Your task to perform on an android device: Show the shopping cart on walmart.com. Search for usb-c on walmart.com, select the first entry, add it to the cart, then select checkout. Image 0: 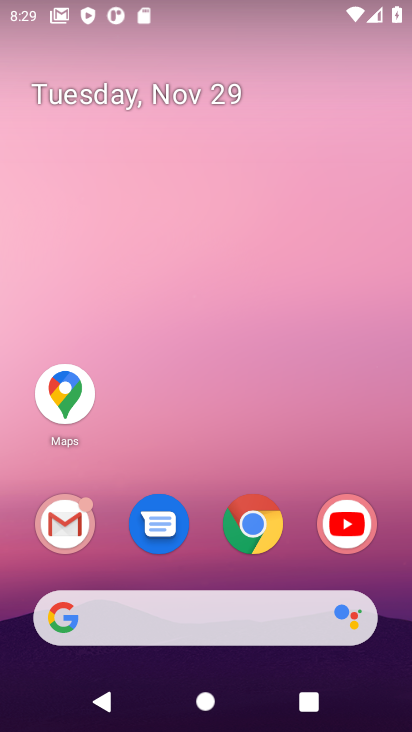
Step 0: click (253, 522)
Your task to perform on an android device: Show the shopping cart on walmart.com. Search for usb-c on walmart.com, select the first entry, add it to the cart, then select checkout. Image 1: 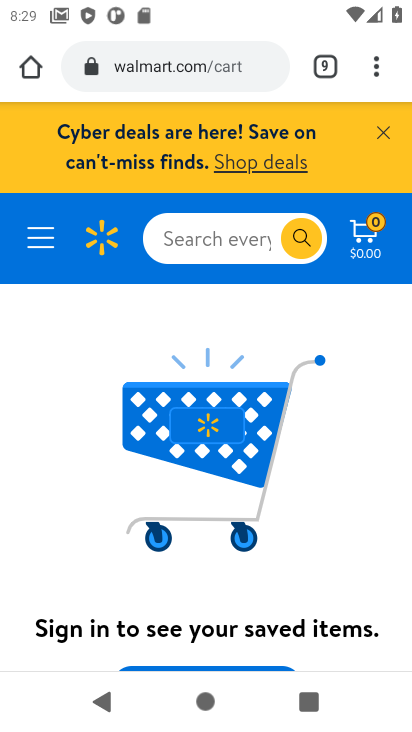
Step 1: drag from (279, 483) to (272, 405)
Your task to perform on an android device: Show the shopping cart on walmart.com. Search for usb-c on walmart.com, select the first entry, add it to the cart, then select checkout. Image 2: 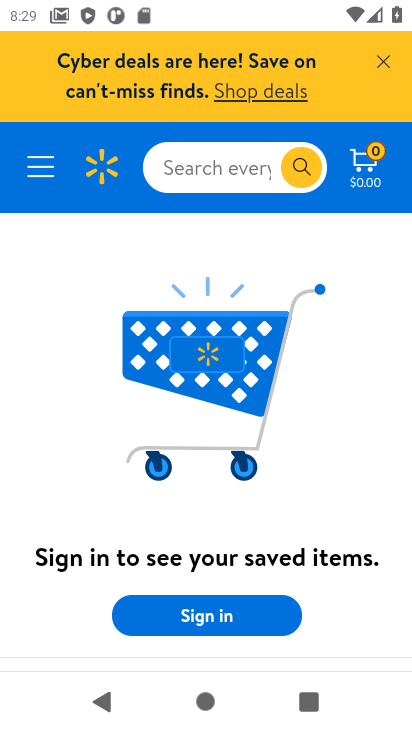
Step 2: click (198, 197)
Your task to perform on an android device: Show the shopping cart on walmart.com. Search for usb-c on walmart.com, select the first entry, add it to the cart, then select checkout. Image 3: 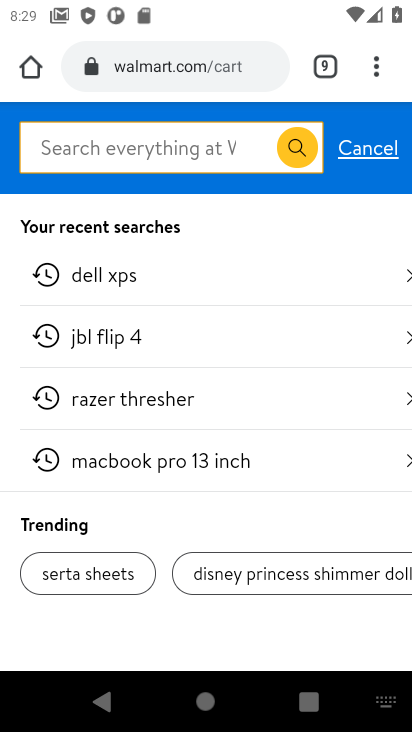
Step 3: type "usb-c"
Your task to perform on an android device: Show the shopping cart on walmart.com. Search for usb-c on walmart.com, select the first entry, add it to the cart, then select checkout. Image 4: 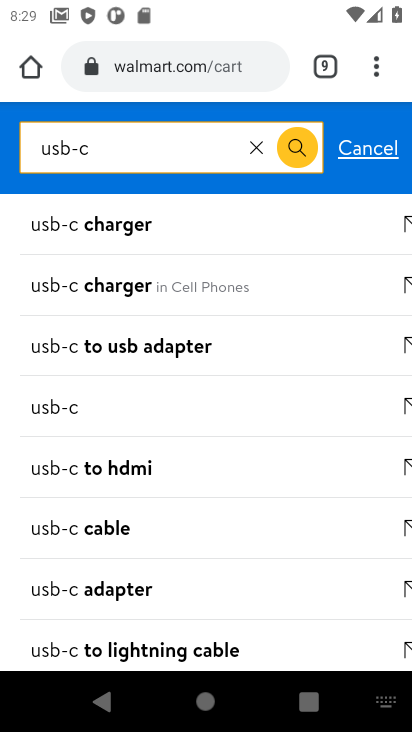
Step 4: click (56, 411)
Your task to perform on an android device: Show the shopping cart on walmart.com. Search for usb-c on walmart.com, select the first entry, add it to the cart, then select checkout. Image 5: 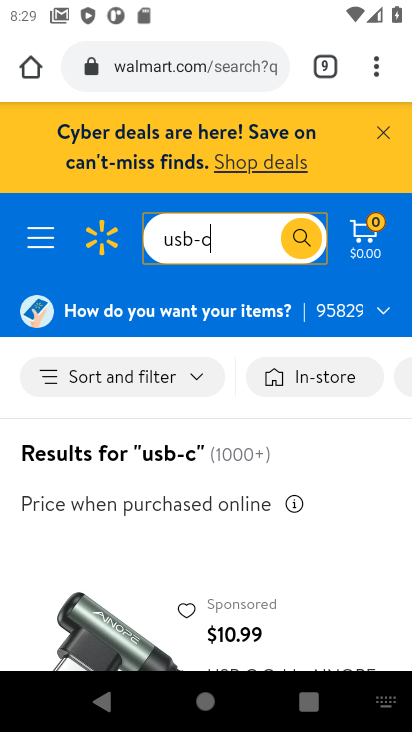
Step 5: drag from (105, 503) to (79, 201)
Your task to perform on an android device: Show the shopping cart on walmart.com. Search for usb-c on walmart.com, select the first entry, add it to the cart, then select checkout. Image 6: 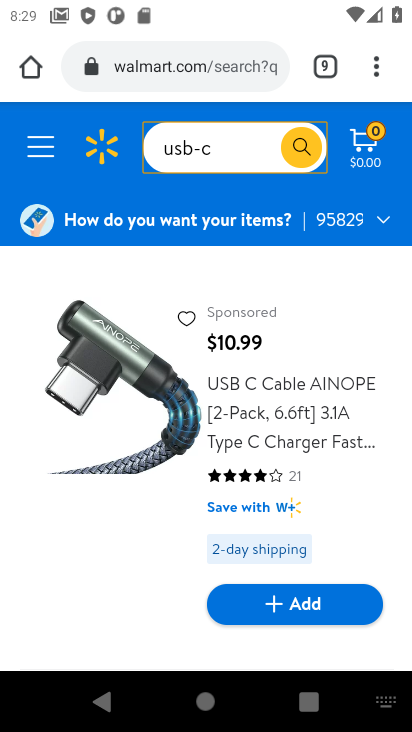
Step 6: click (323, 602)
Your task to perform on an android device: Show the shopping cart on walmart.com. Search for usb-c on walmart.com, select the first entry, add it to the cart, then select checkout. Image 7: 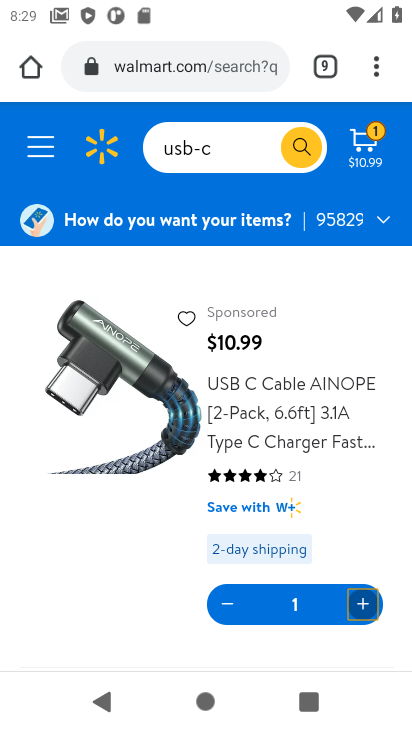
Step 7: click (369, 150)
Your task to perform on an android device: Show the shopping cart on walmart.com. Search for usb-c on walmart.com, select the first entry, add it to the cart, then select checkout. Image 8: 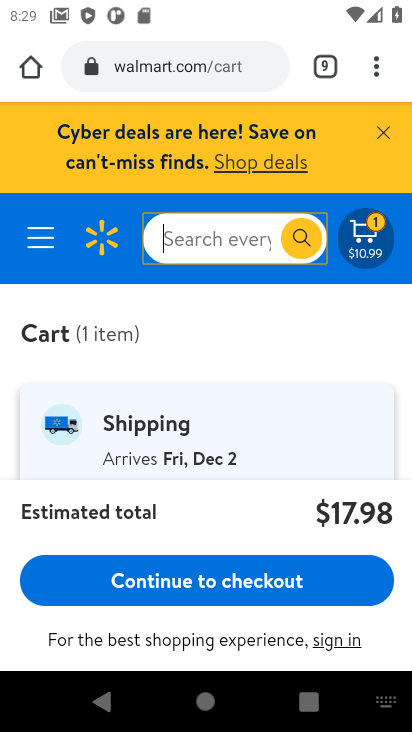
Step 8: click (252, 567)
Your task to perform on an android device: Show the shopping cart on walmart.com. Search for usb-c on walmart.com, select the first entry, add it to the cart, then select checkout. Image 9: 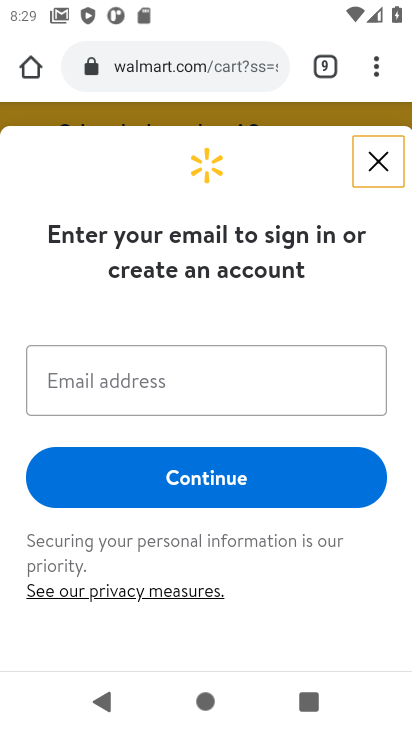
Step 9: task complete